Your task to perform on an android device: turn off location Image 0: 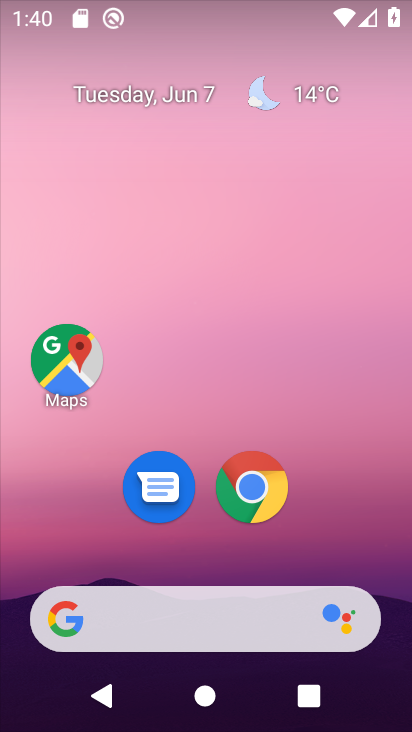
Step 0: drag from (210, 558) to (361, 404)
Your task to perform on an android device: turn off location Image 1: 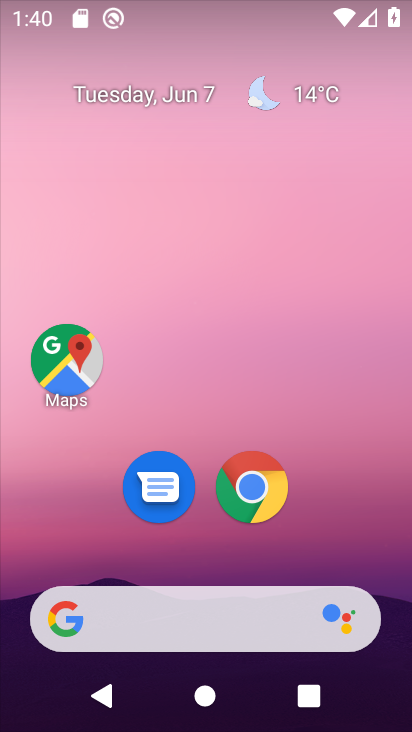
Step 1: drag from (192, 608) to (357, 573)
Your task to perform on an android device: turn off location Image 2: 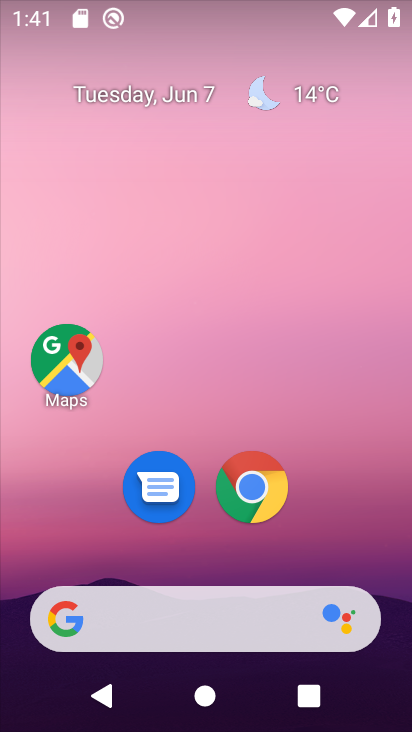
Step 2: drag from (212, 590) to (348, 221)
Your task to perform on an android device: turn off location Image 3: 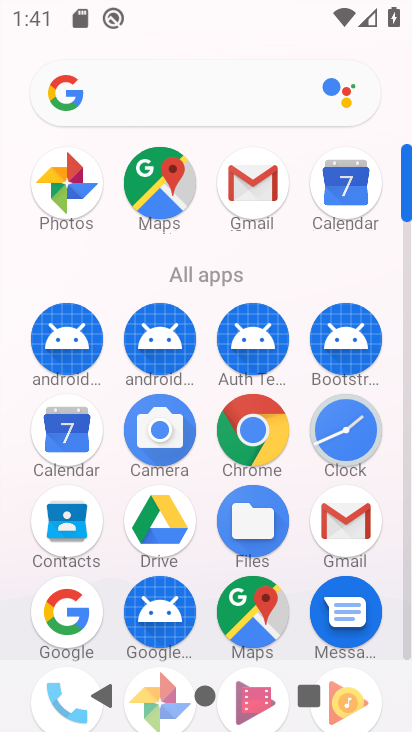
Step 3: drag from (213, 599) to (388, 253)
Your task to perform on an android device: turn off location Image 4: 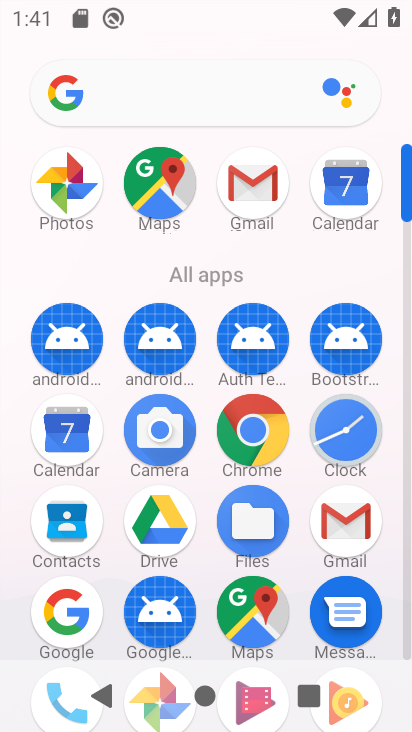
Step 4: drag from (208, 638) to (410, 25)
Your task to perform on an android device: turn off location Image 5: 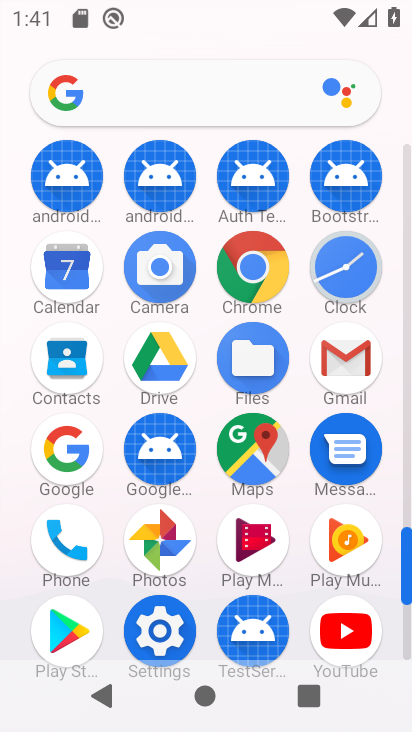
Step 5: click (155, 625)
Your task to perform on an android device: turn off location Image 6: 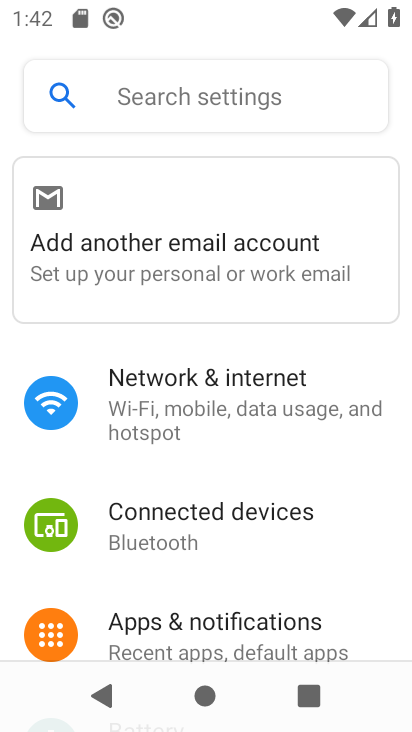
Step 6: drag from (213, 552) to (378, 16)
Your task to perform on an android device: turn off location Image 7: 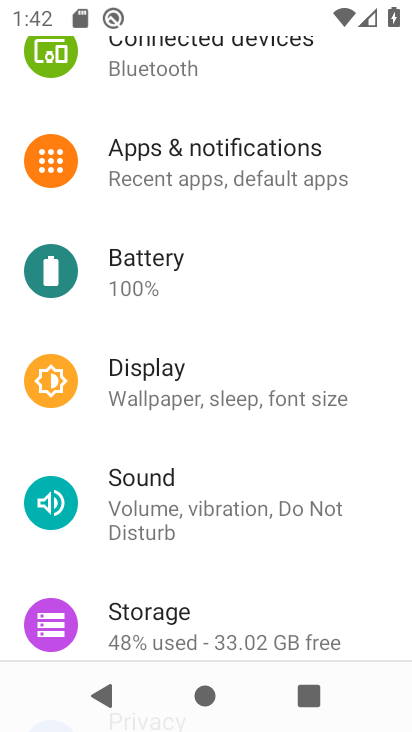
Step 7: drag from (173, 288) to (176, 656)
Your task to perform on an android device: turn off location Image 8: 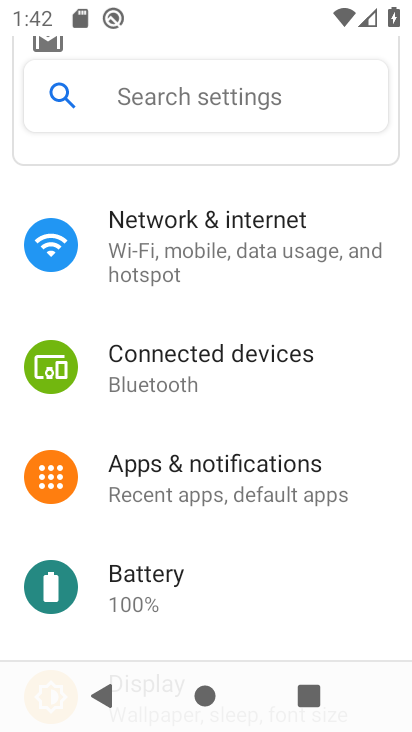
Step 8: drag from (188, 632) to (205, 67)
Your task to perform on an android device: turn off location Image 9: 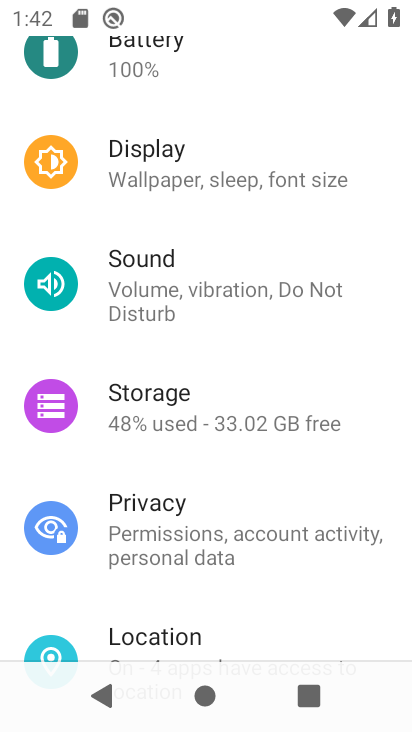
Step 9: click (168, 629)
Your task to perform on an android device: turn off location Image 10: 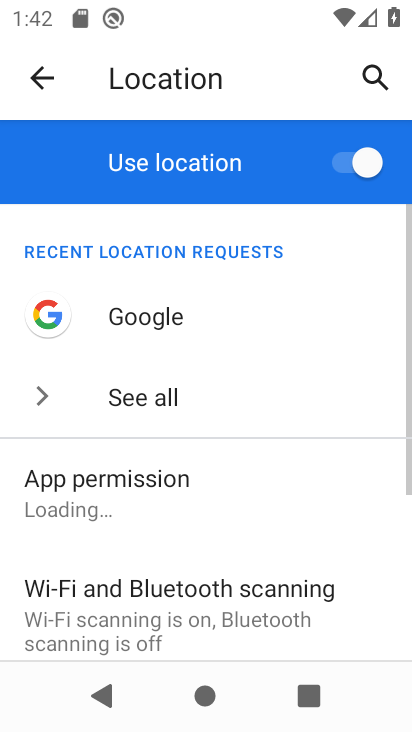
Step 10: click (344, 179)
Your task to perform on an android device: turn off location Image 11: 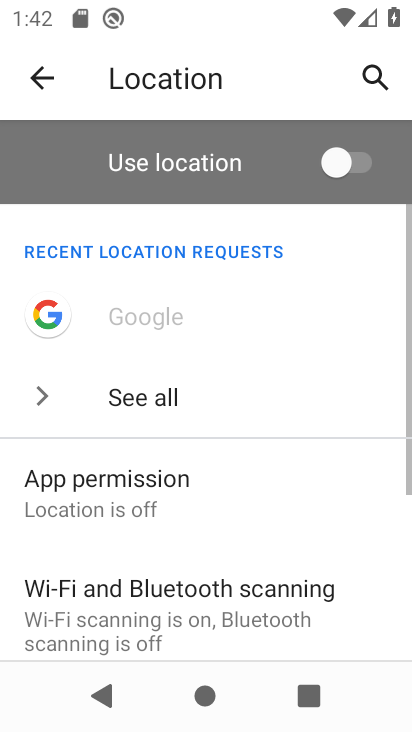
Step 11: task complete